Your task to perform on an android device: Open internet settings Image 0: 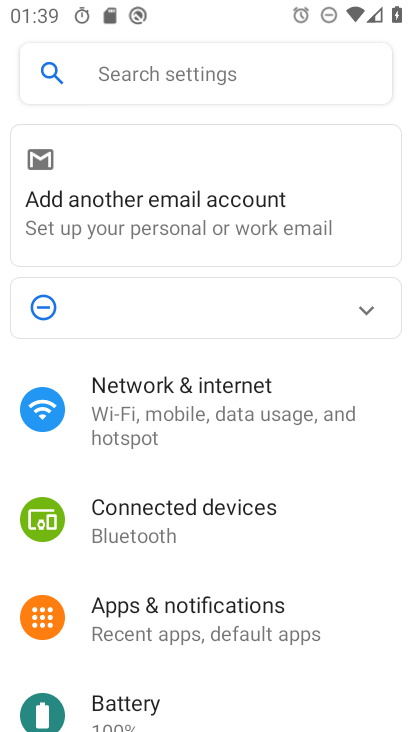
Step 0: click (315, 410)
Your task to perform on an android device: Open internet settings Image 1: 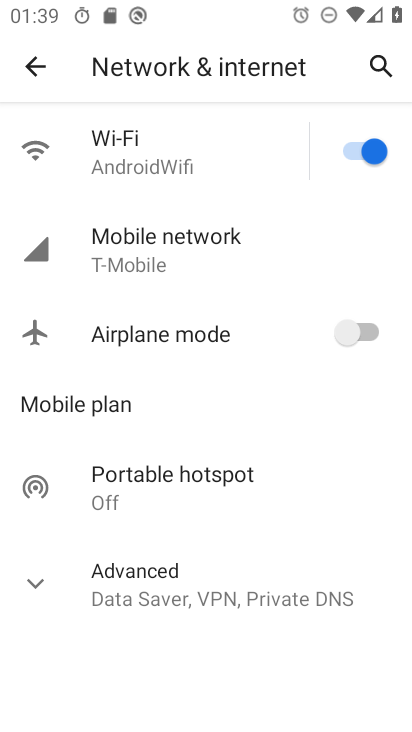
Step 1: task complete